Your task to perform on an android device: Open Google Chrome and open the bookmarks view Image 0: 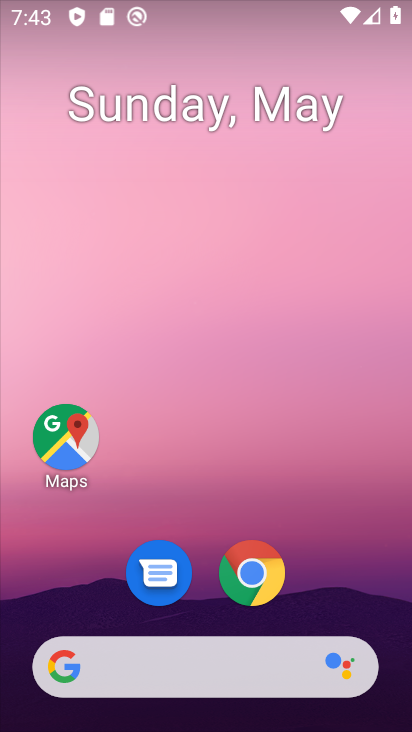
Step 0: click (247, 578)
Your task to perform on an android device: Open Google Chrome and open the bookmarks view Image 1: 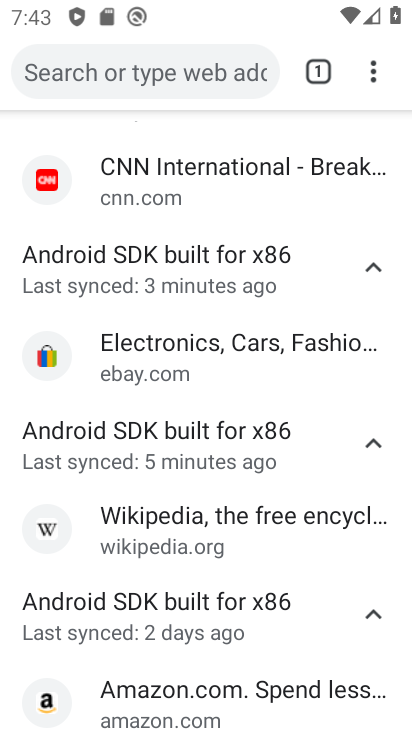
Step 1: task complete